Your task to perform on an android device: move an email to a new category in the gmail app Image 0: 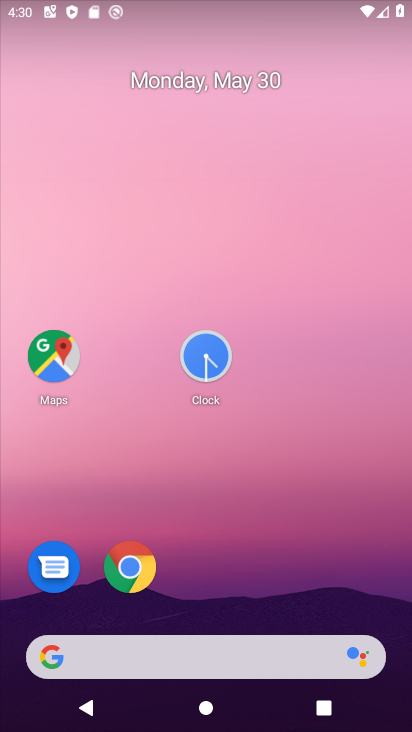
Step 0: drag from (281, 653) to (229, 88)
Your task to perform on an android device: move an email to a new category in the gmail app Image 1: 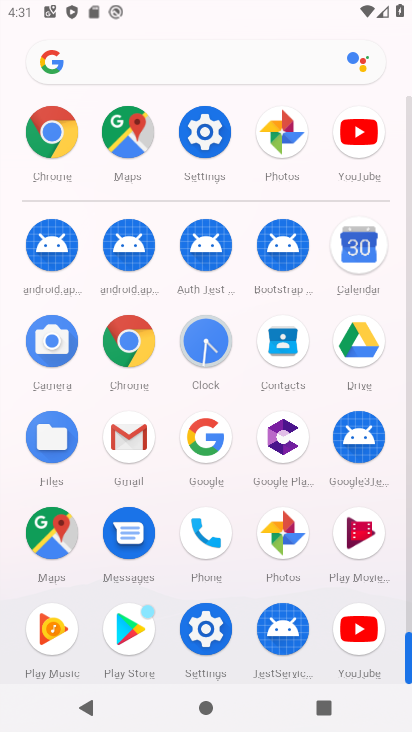
Step 1: click (127, 437)
Your task to perform on an android device: move an email to a new category in the gmail app Image 2: 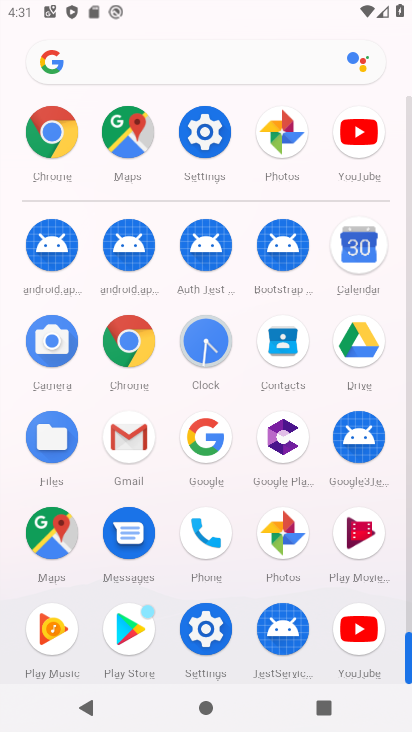
Step 2: click (132, 437)
Your task to perform on an android device: move an email to a new category in the gmail app Image 3: 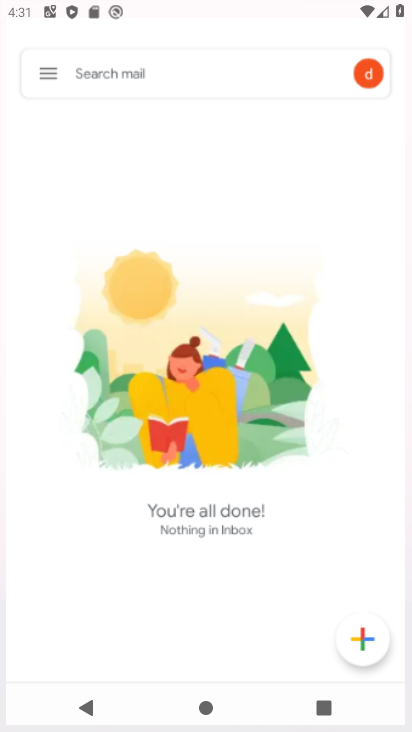
Step 3: click (132, 437)
Your task to perform on an android device: move an email to a new category in the gmail app Image 4: 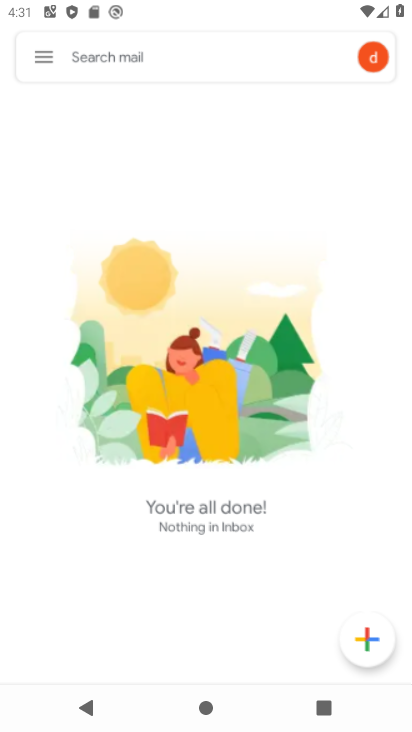
Step 4: click (132, 437)
Your task to perform on an android device: move an email to a new category in the gmail app Image 5: 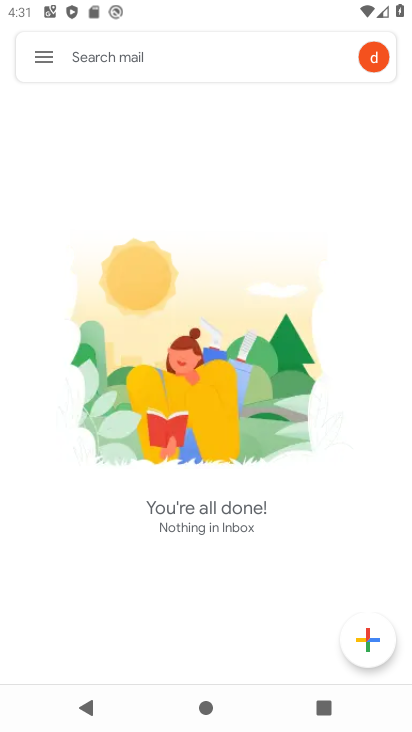
Step 5: click (132, 437)
Your task to perform on an android device: move an email to a new category in the gmail app Image 6: 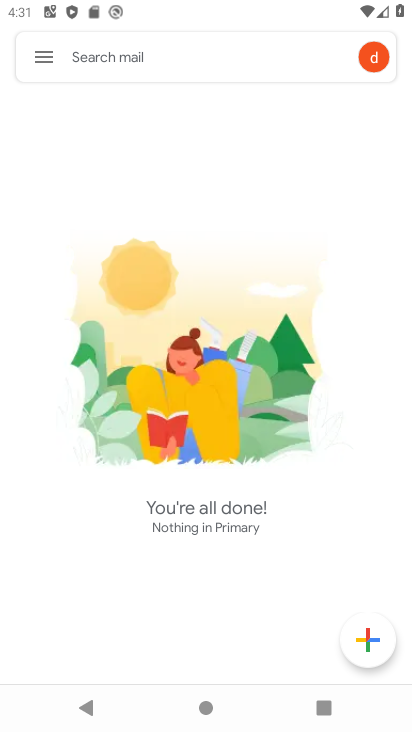
Step 6: press back button
Your task to perform on an android device: move an email to a new category in the gmail app Image 7: 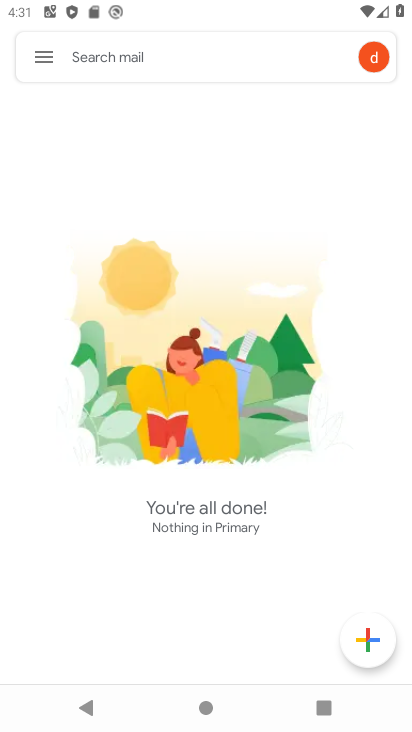
Step 7: press back button
Your task to perform on an android device: move an email to a new category in the gmail app Image 8: 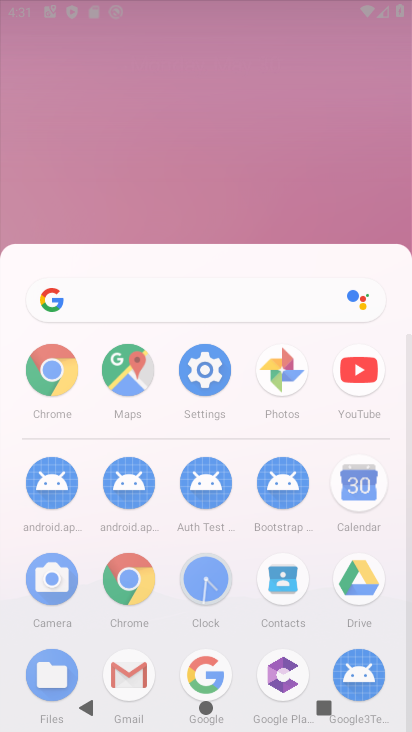
Step 8: press back button
Your task to perform on an android device: move an email to a new category in the gmail app Image 9: 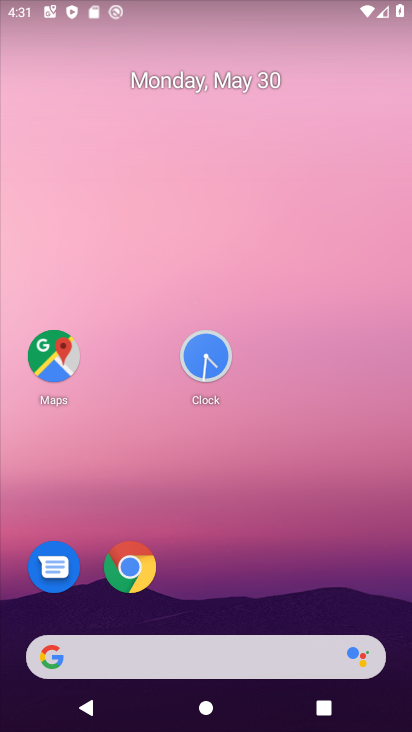
Step 9: drag from (275, 644) to (204, 22)
Your task to perform on an android device: move an email to a new category in the gmail app Image 10: 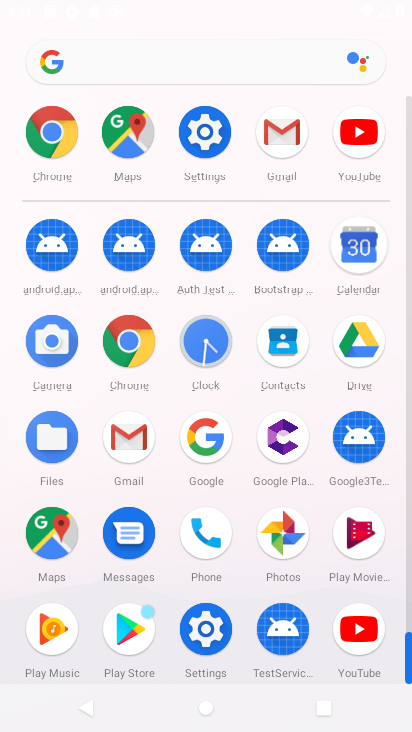
Step 10: drag from (240, 478) to (206, 29)
Your task to perform on an android device: move an email to a new category in the gmail app Image 11: 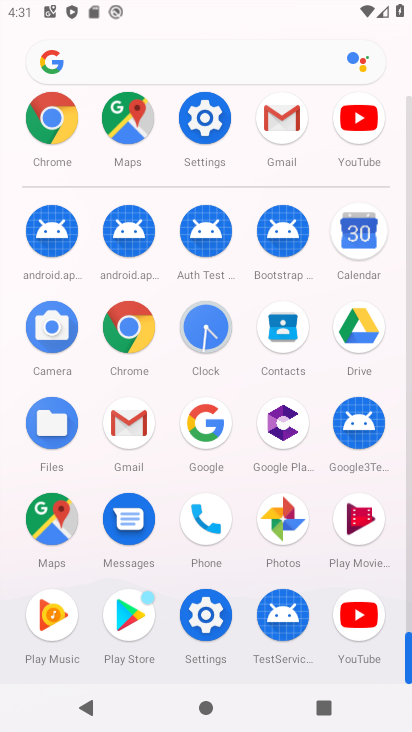
Step 11: drag from (186, 75) to (163, 0)
Your task to perform on an android device: move an email to a new category in the gmail app Image 12: 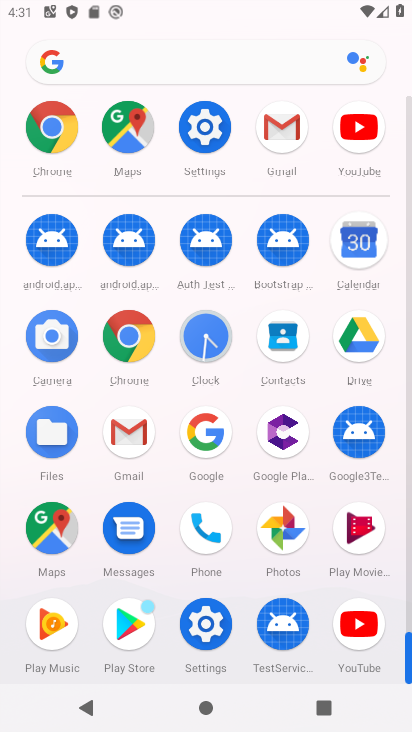
Step 12: click (126, 435)
Your task to perform on an android device: move an email to a new category in the gmail app Image 13: 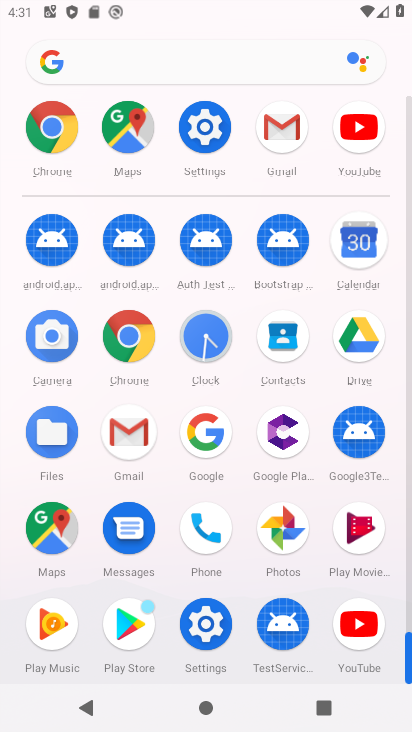
Step 13: click (127, 434)
Your task to perform on an android device: move an email to a new category in the gmail app Image 14: 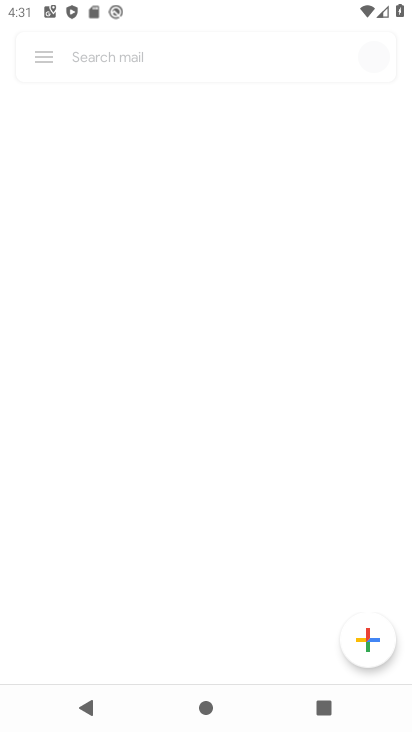
Step 14: click (130, 433)
Your task to perform on an android device: move an email to a new category in the gmail app Image 15: 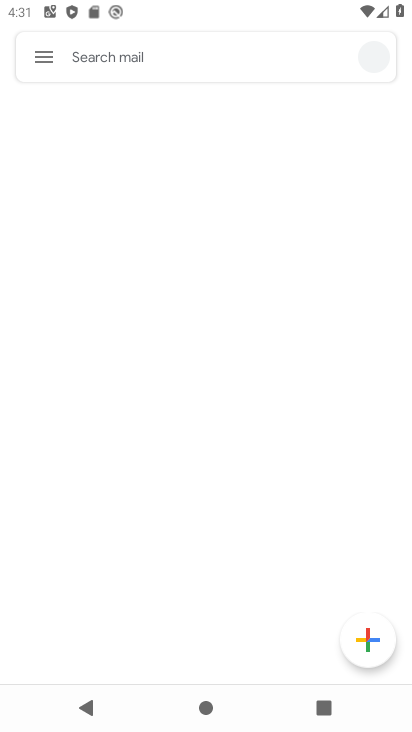
Step 15: click (130, 433)
Your task to perform on an android device: move an email to a new category in the gmail app Image 16: 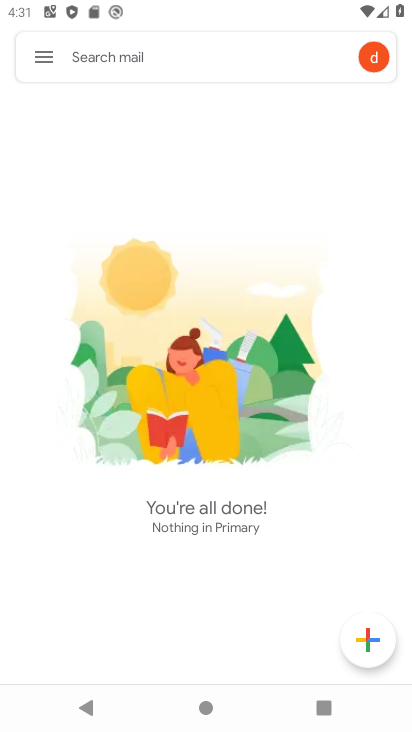
Step 16: click (49, 61)
Your task to perform on an android device: move an email to a new category in the gmail app Image 17: 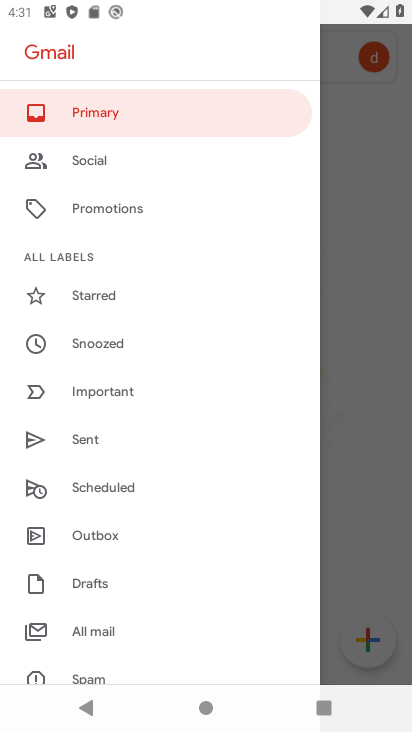
Step 17: click (99, 625)
Your task to perform on an android device: move an email to a new category in the gmail app Image 18: 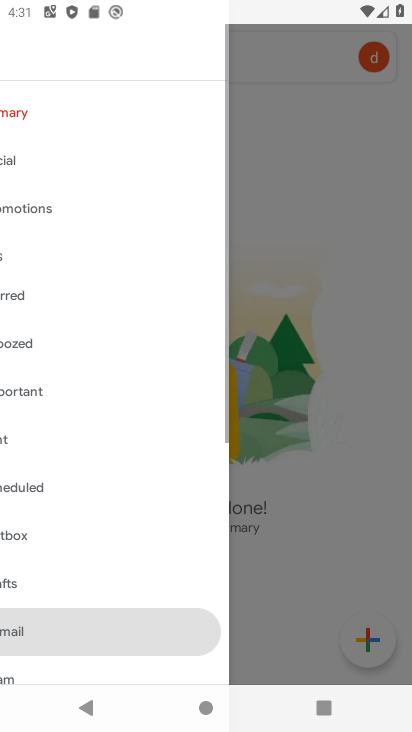
Step 18: click (96, 627)
Your task to perform on an android device: move an email to a new category in the gmail app Image 19: 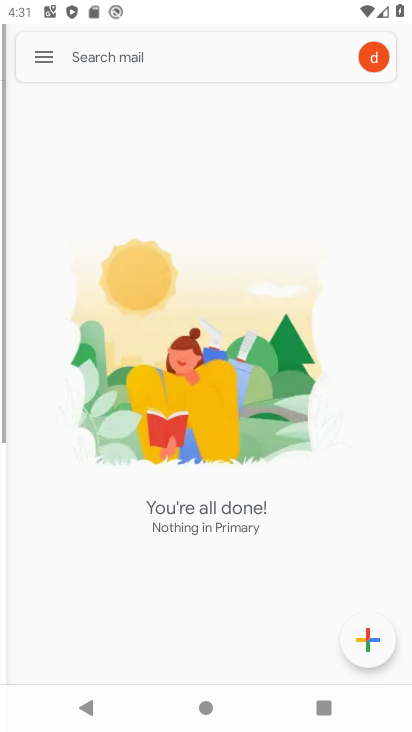
Step 19: click (96, 627)
Your task to perform on an android device: move an email to a new category in the gmail app Image 20: 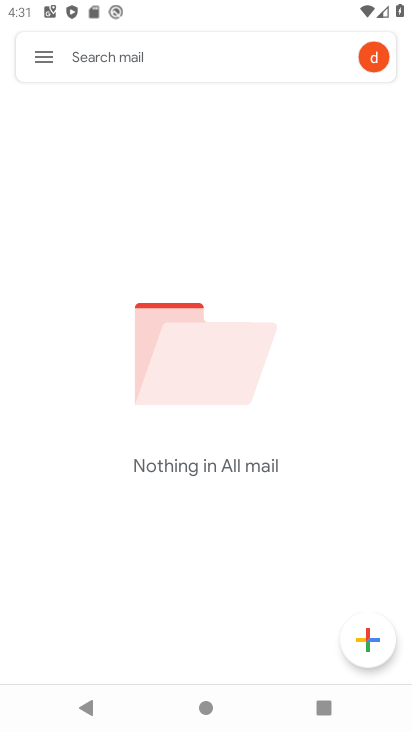
Step 20: task complete